Your task to perform on an android device: turn vacation reply on in the gmail app Image 0: 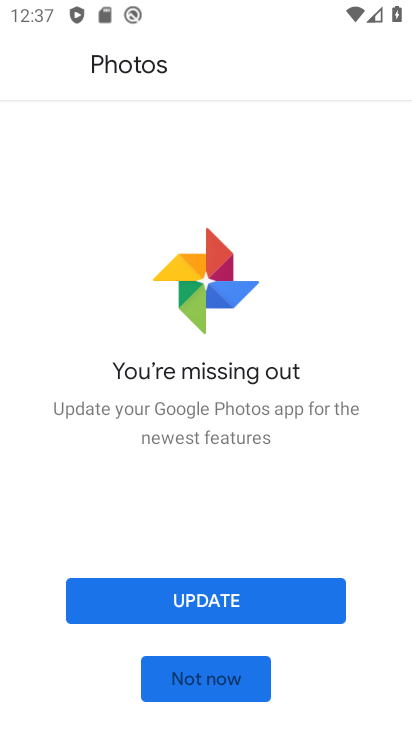
Step 0: press home button
Your task to perform on an android device: turn vacation reply on in the gmail app Image 1: 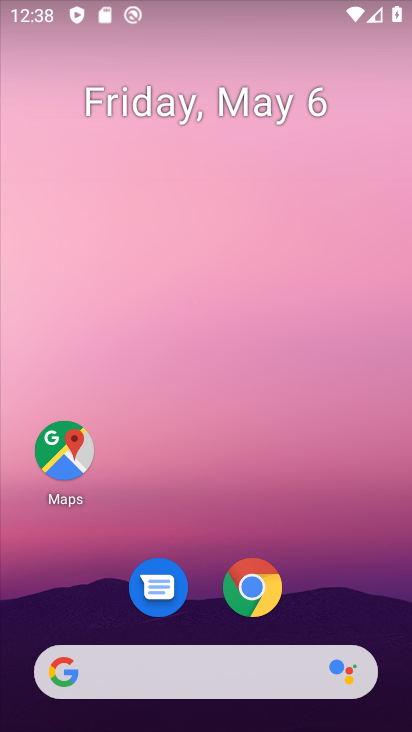
Step 1: drag from (158, 377) to (289, 50)
Your task to perform on an android device: turn vacation reply on in the gmail app Image 2: 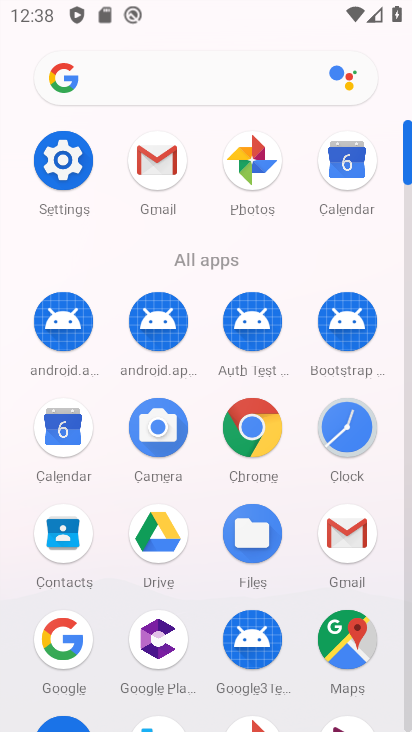
Step 2: click (327, 537)
Your task to perform on an android device: turn vacation reply on in the gmail app Image 3: 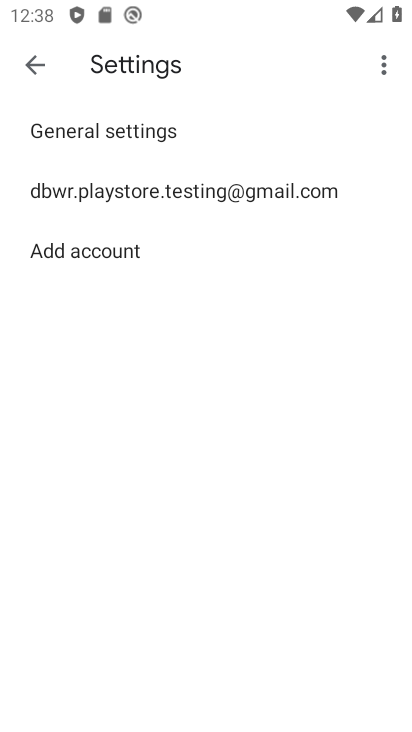
Step 3: click (81, 184)
Your task to perform on an android device: turn vacation reply on in the gmail app Image 4: 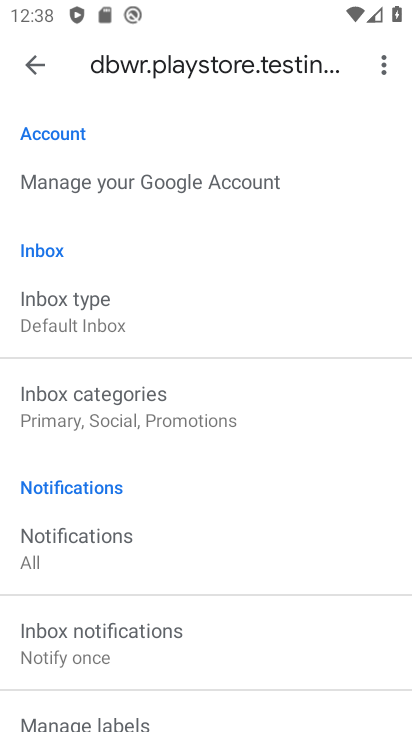
Step 4: drag from (209, 667) to (300, 172)
Your task to perform on an android device: turn vacation reply on in the gmail app Image 5: 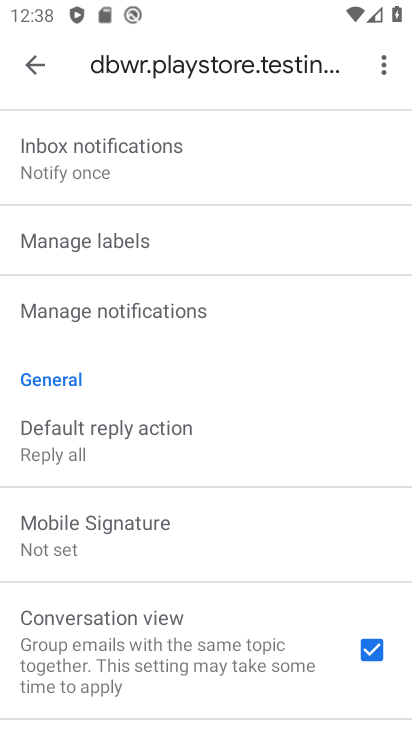
Step 5: drag from (152, 615) to (246, 215)
Your task to perform on an android device: turn vacation reply on in the gmail app Image 6: 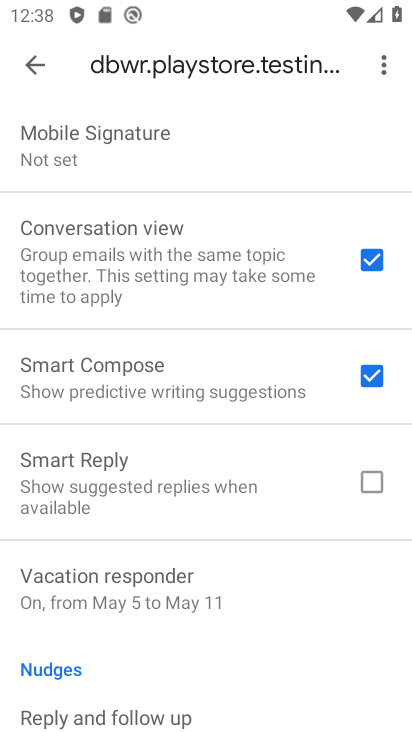
Step 6: click (185, 573)
Your task to perform on an android device: turn vacation reply on in the gmail app Image 7: 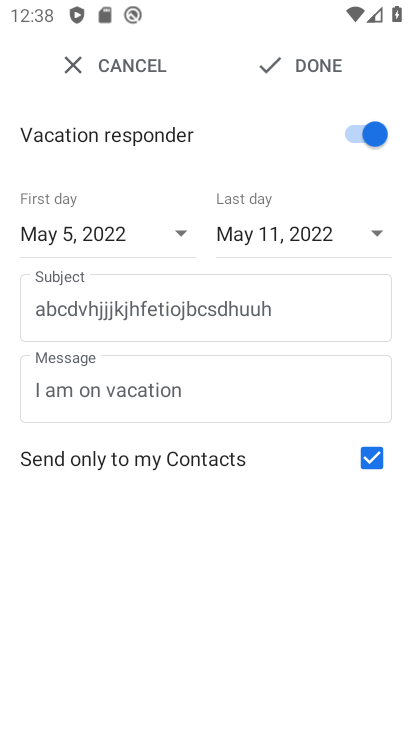
Step 7: click (310, 69)
Your task to perform on an android device: turn vacation reply on in the gmail app Image 8: 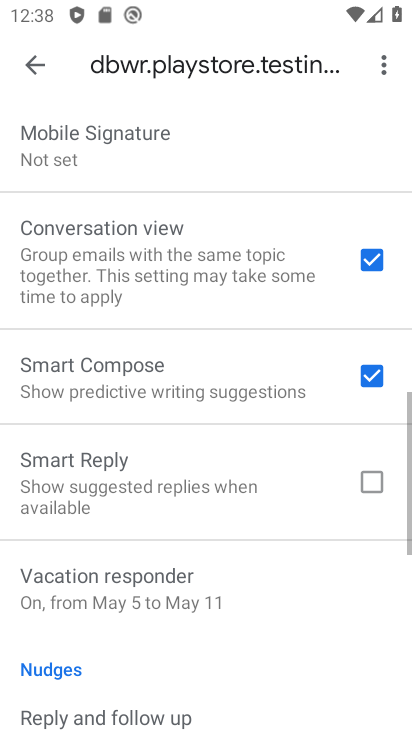
Step 8: task complete